Your task to perform on an android device: see tabs open on other devices in the chrome app Image 0: 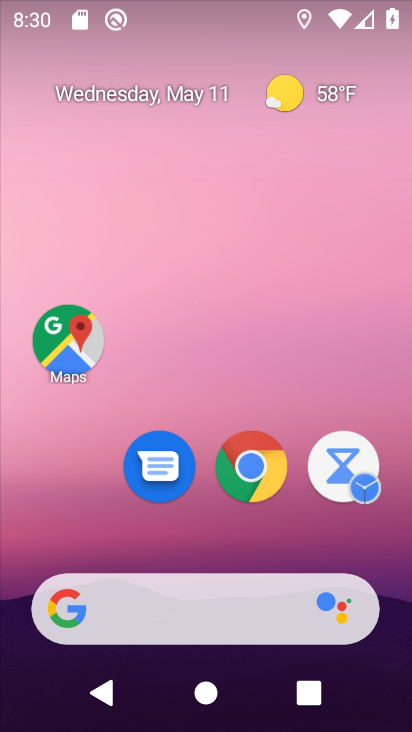
Step 0: click (255, 454)
Your task to perform on an android device: see tabs open on other devices in the chrome app Image 1: 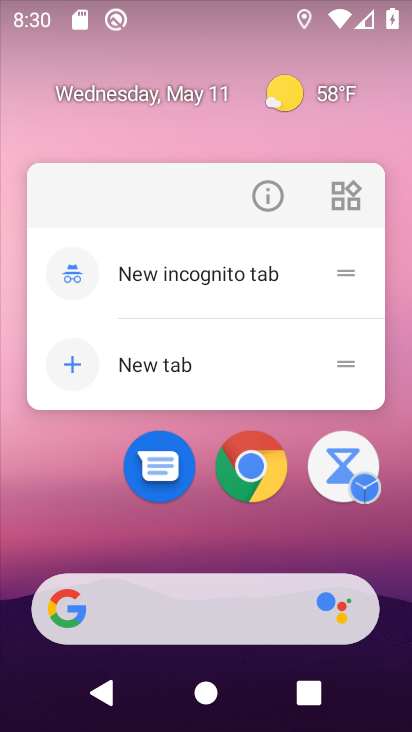
Step 1: click (246, 467)
Your task to perform on an android device: see tabs open on other devices in the chrome app Image 2: 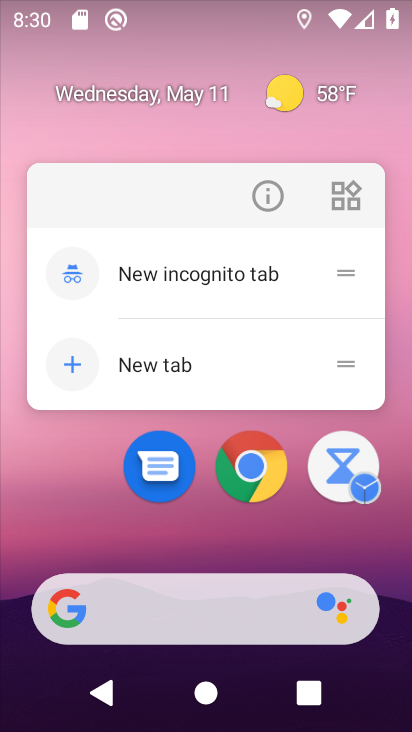
Step 2: click (242, 455)
Your task to perform on an android device: see tabs open on other devices in the chrome app Image 3: 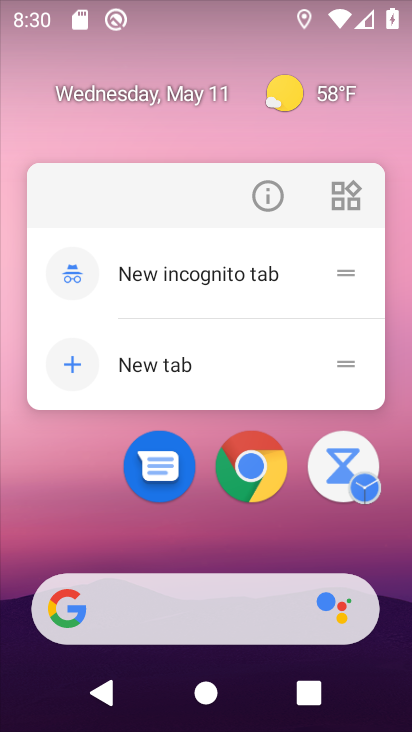
Step 3: click (218, 469)
Your task to perform on an android device: see tabs open on other devices in the chrome app Image 4: 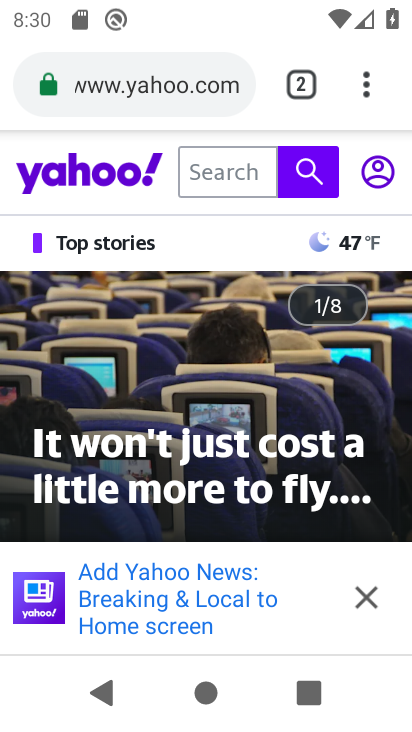
Step 4: click (359, 83)
Your task to perform on an android device: see tabs open on other devices in the chrome app Image 5: 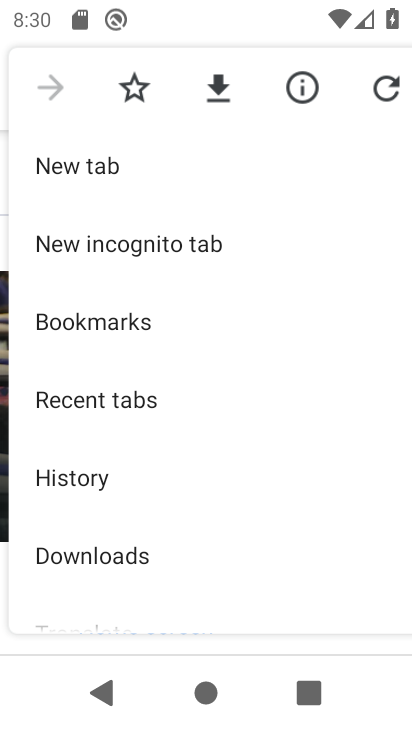
Step 5: click (60, 406)
Your task to perform on an android device: see tabs open on other devices in the chrome app Image 6: 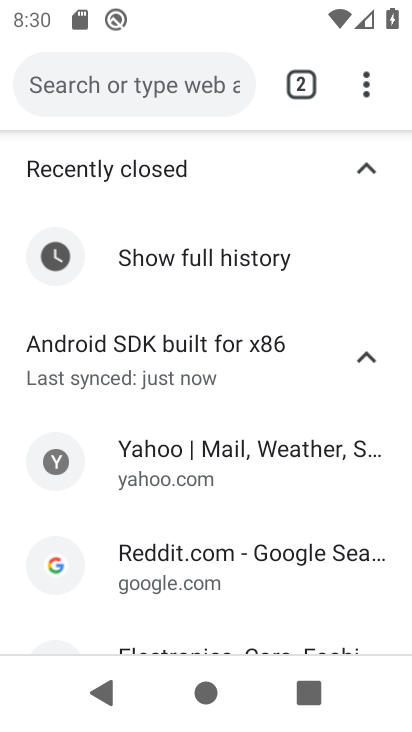
Step 6: task complete